Your task to perform on an android device: Turn off the flashlight Image 0: 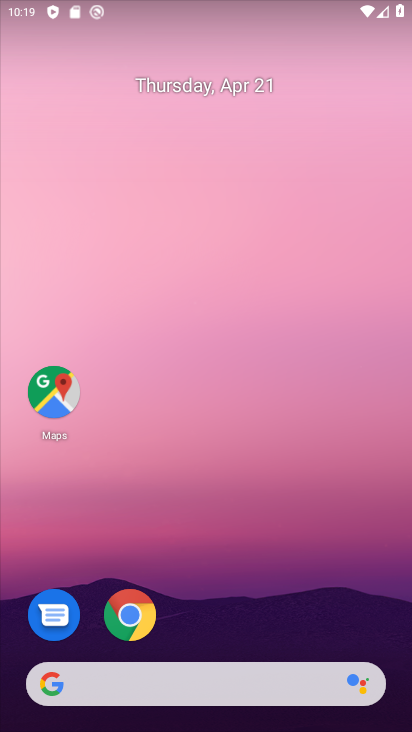
Step 0: click (257, 122)
Your task to perform on an android device: Turn off the flashlight Image 1: 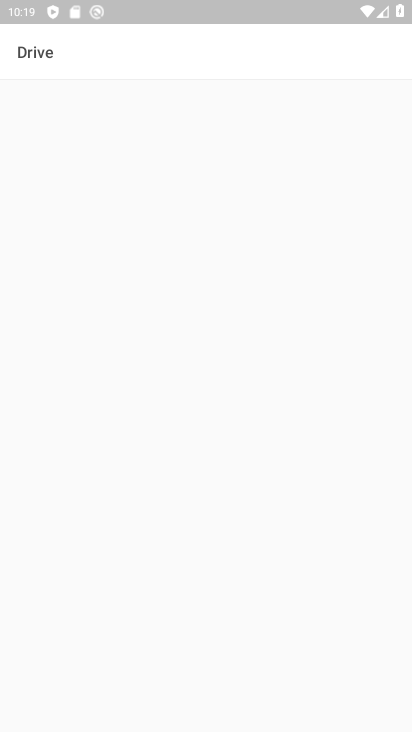
Step 1: press back button
Your task to perform on an android device: Turn off the flashlight Image 2: 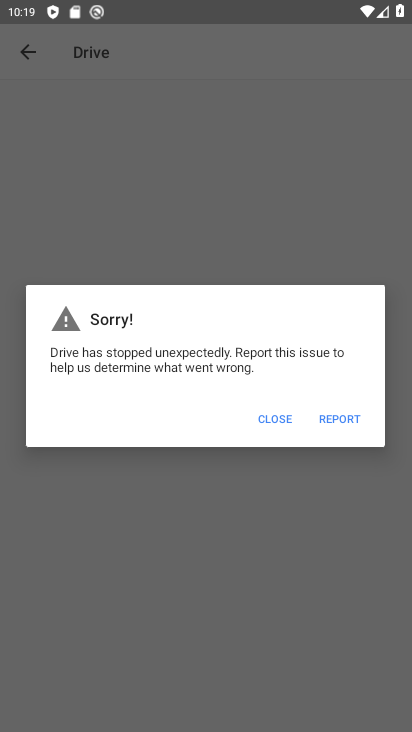
Step 2: press back button
Your task to perform on an android device: Turn off the flashlight Image 3: 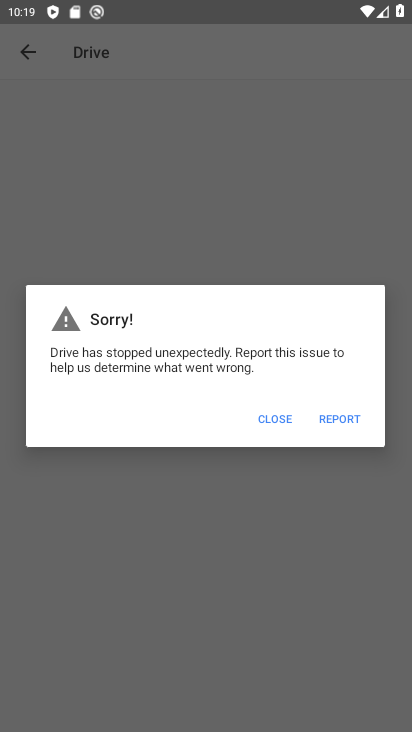
Step 3: click (280, 421)
Your task to perform on an android device: Turn off the flashlight Image 4: 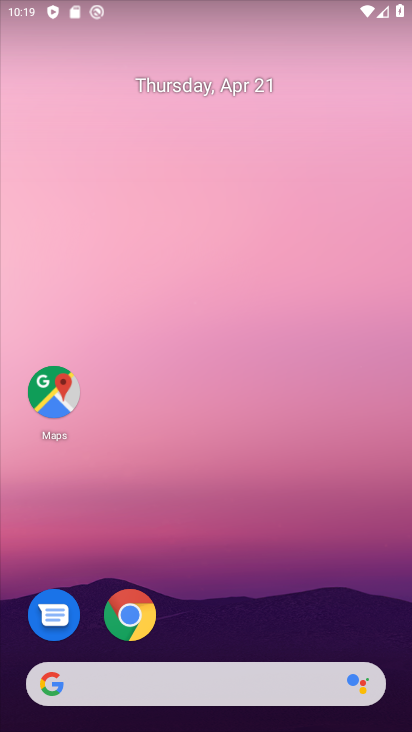
Step 4: task complete